Your task to perform on an android device: toggle javascript in the chrome app Image 0: 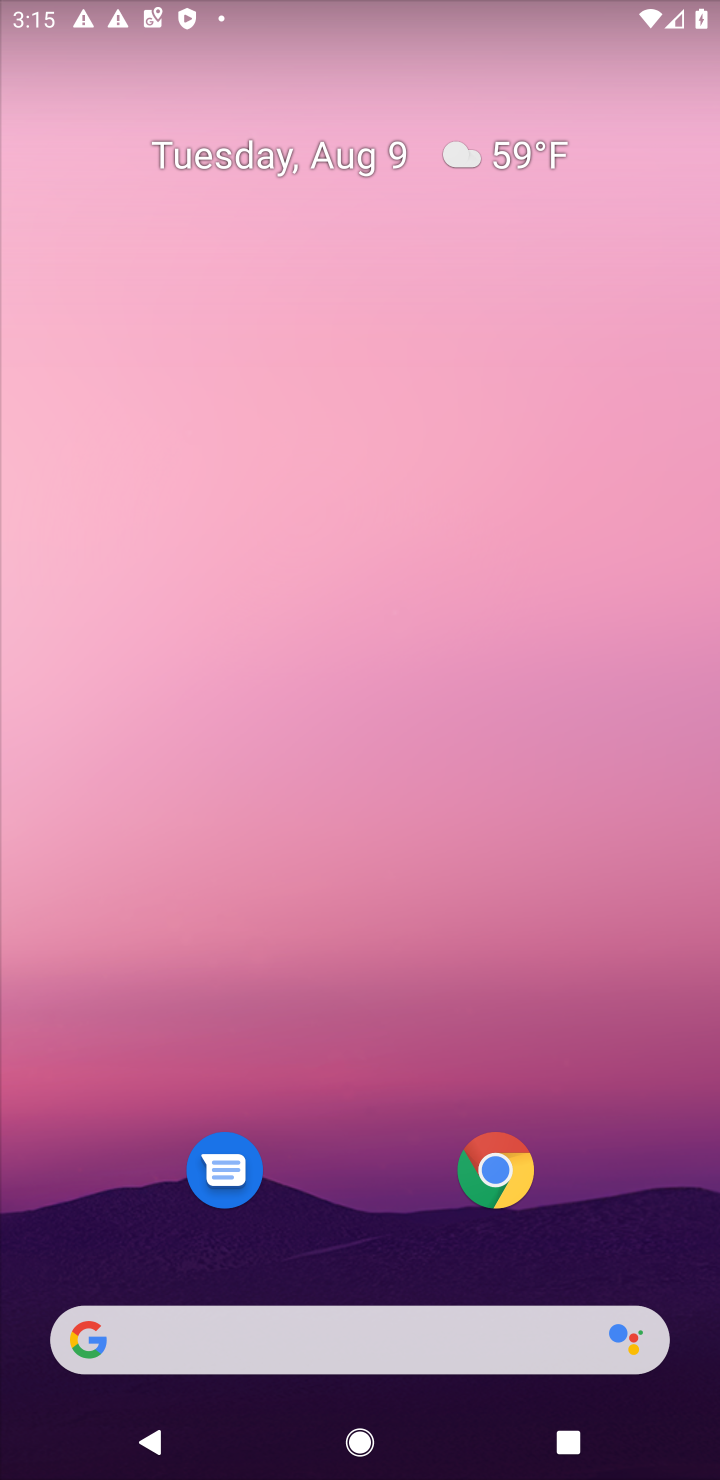
Step 0: task complete